Your task to perform on an android device: When is my next appointment? Image 0: 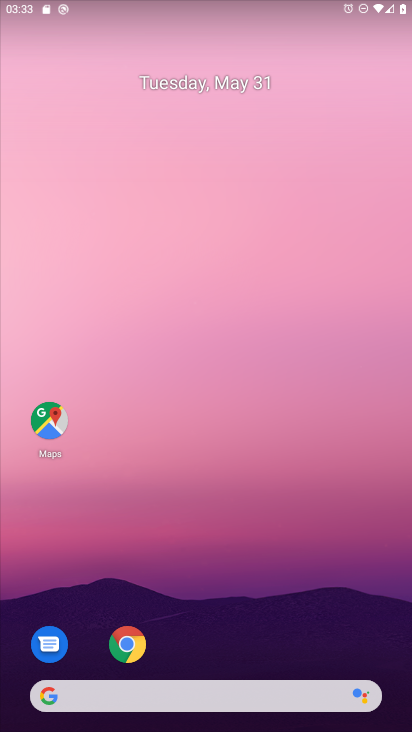
Step 0: click (326, 15)
Your task to perform on an android device: When is my next appointment? Image 1: 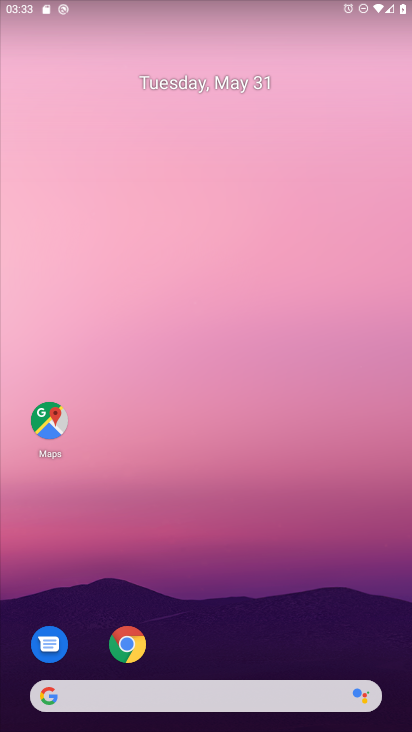
Step 1: drag from (256, 611) to (267, 6)
Your task to perform on an android device: When is my next appointment? Image 2: 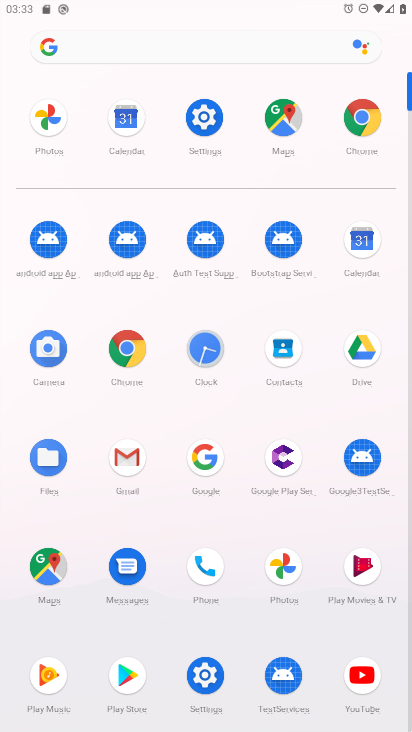
Step 2: click (361, 241)
Your task to perform on an android device: When is my next appointment? Image 3: 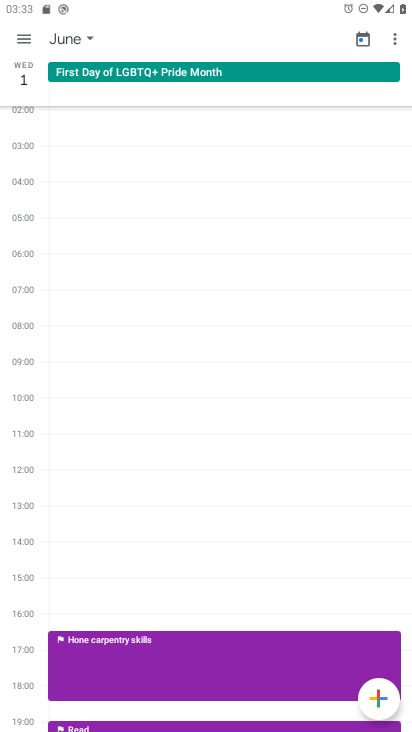
Step 3: click (77, 42)
Your task to perform on an android device: When is my next appointment? Image 4: 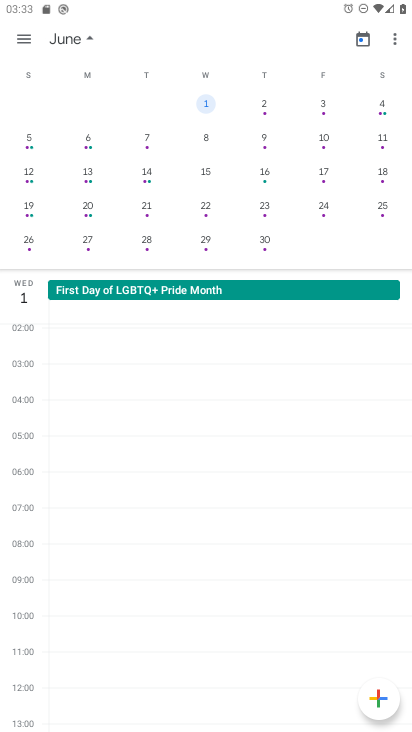
Step 4: drag from (54, 176) to (372, 166)
Your task to perform on an android device: When is my next appointment? Image 5: 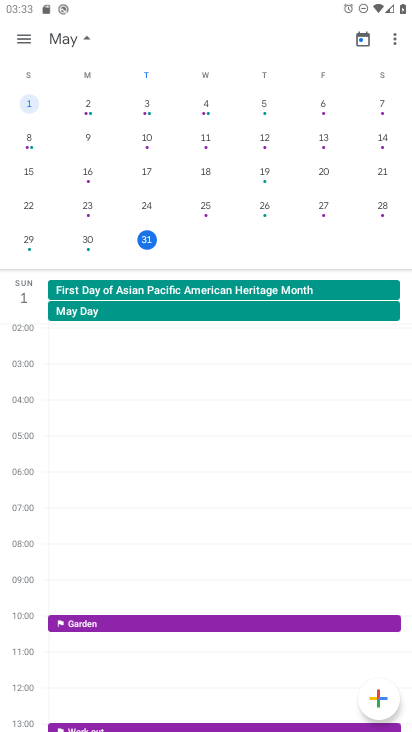
Step 5: click (147, 235)
Your task to perform on an android device: When is my next appointment? Image 6: 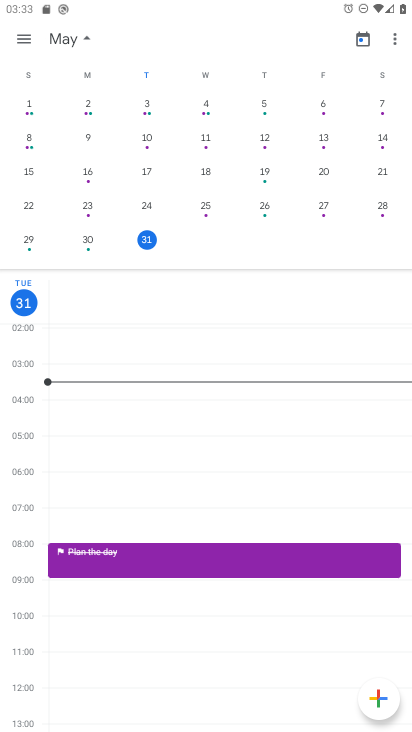
Step 6: click (22, 41)
Your task to perform on an android device: When is my next appointment? Image 7: 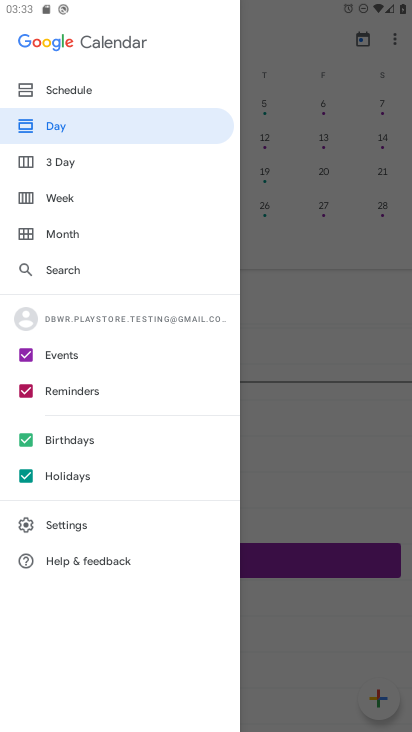
Step 7: click (81, 166)
Your task to perform on an android device: When is my next appointment? Image 8: 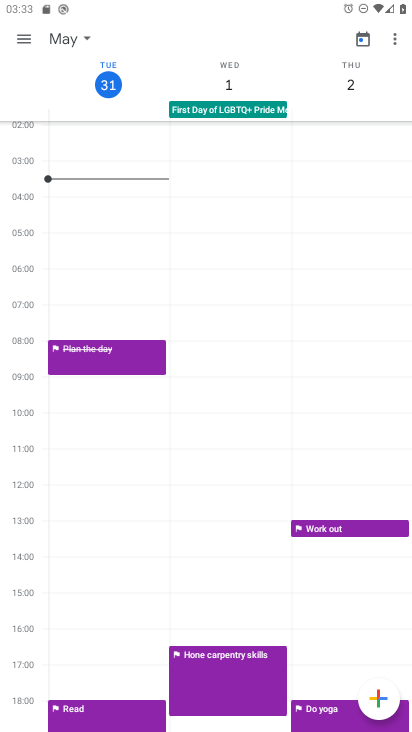
Step 8: task complete